Your task to perform on an android device: check out phone information Image 0: 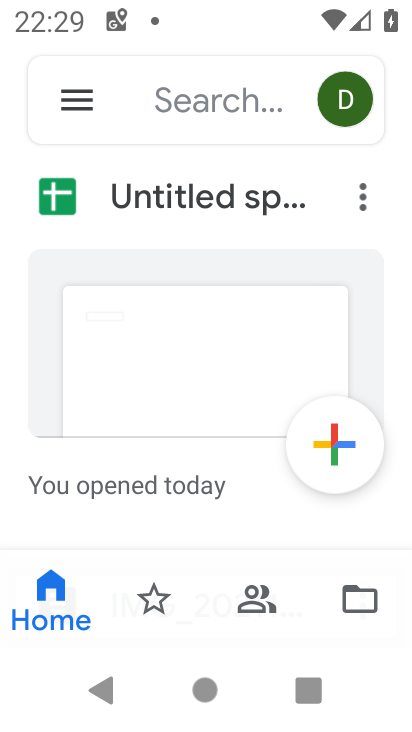
Step 0: press home button
Your task to perform on an android device: check out phone information Image 1: 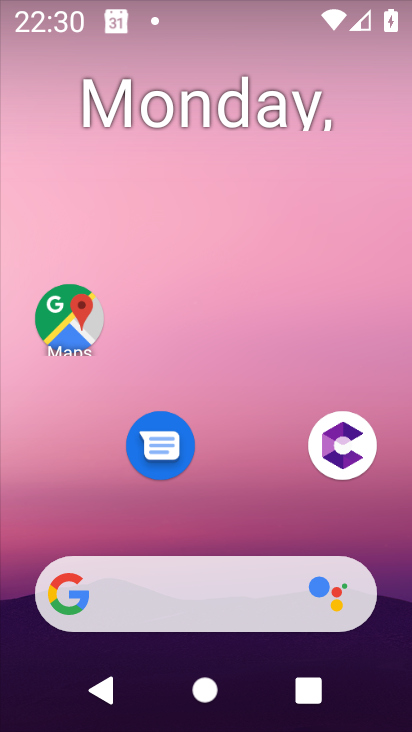
Step 1: drag from (248, 543) to (272, 169)
Your task to perform on an android device: check out phone information Image 2: 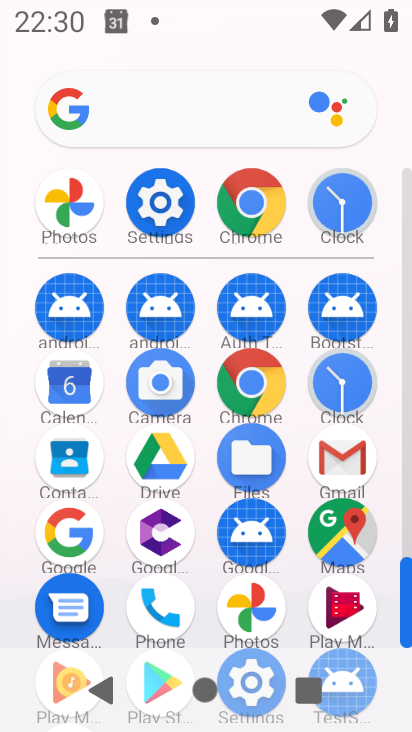
Step 2: click (163, 213)
Your task to perform on an android device: check out phone information Image 3: 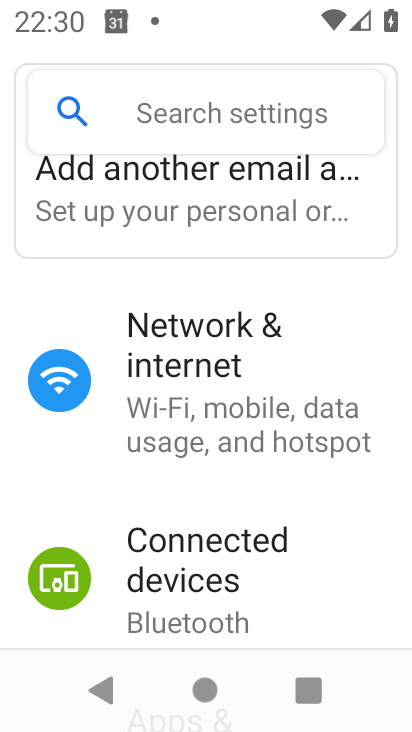
Step 3: drag from (341, 567) to (392, 113)
Your task to perform on an android device: check out phone information Image 4: 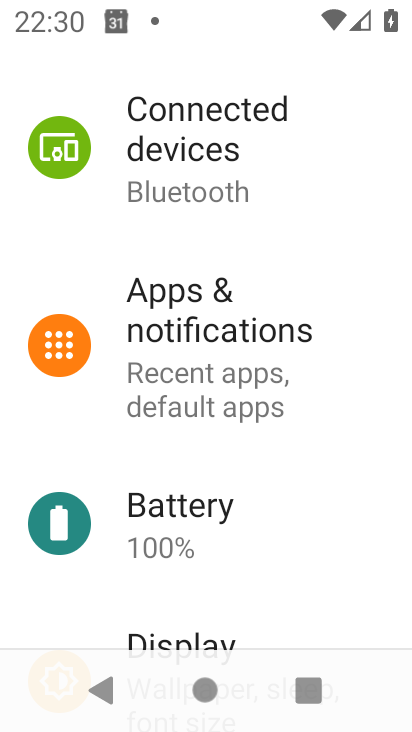
Step 4: drag from (351, 574) to (374, 185)
Your task to perform on an android device: check out phone information Image 5: 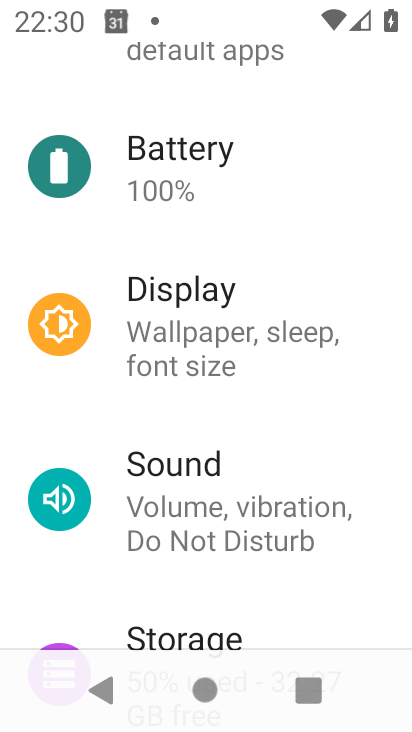
Step 5: drag from (336, 579) to (366, 87)
Your task to perform on an android device: check out phone information Image 6: 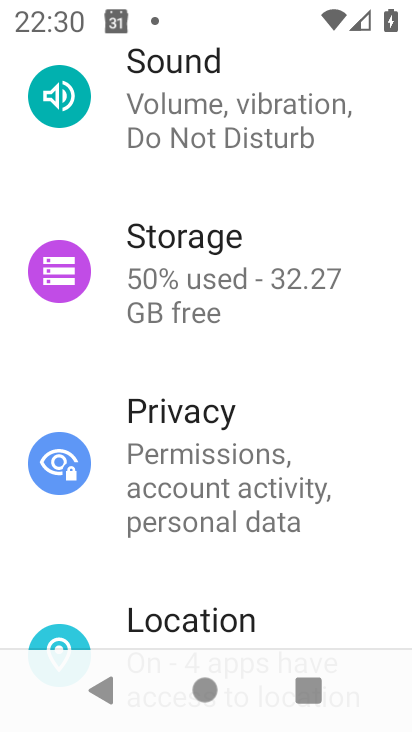
Step 6: drag from (286, 590) to (303, 160)
Your task to perform on an android device: check out phone information Image 7: 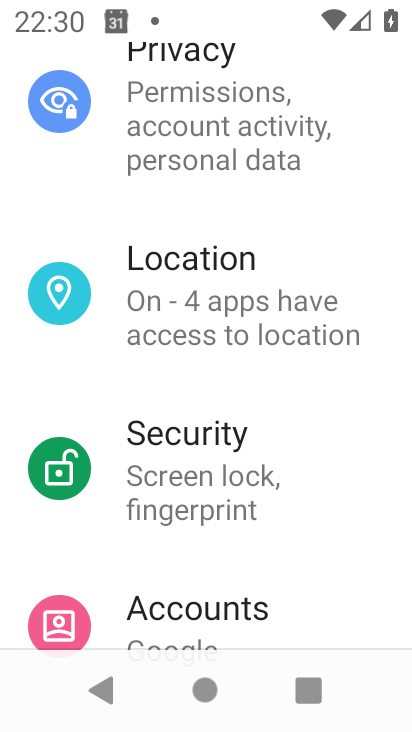
Step 7: drag from (359, 495) to (343, 183)
Your task to perform on an android device: check out phone information Image 8: 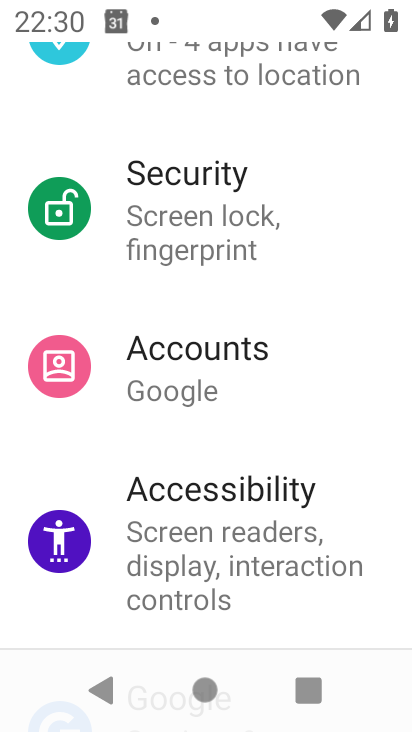
Step 8: drag from (347, 615) to (308, 307)
Your task to perform on an android device: check out phone information Image 9: 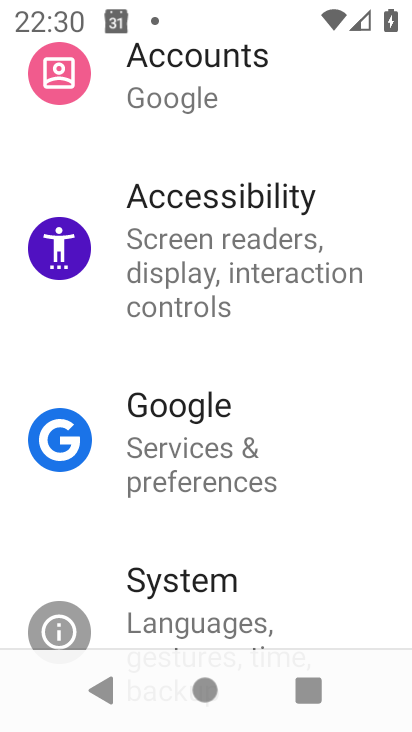
Step 9: drag from (304, 457) to (305, 354)
Your task to perform on an android device: check out phone information Image 10: 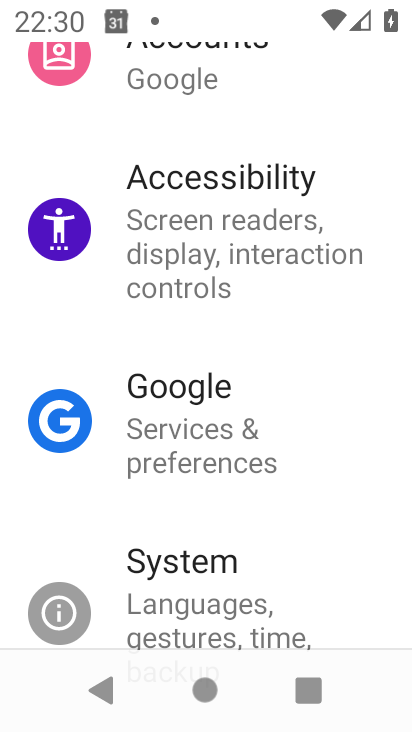
Step 10: drag from (319, 535) to (297, 45)
Your task to perform on an android device: check out phone information Image 11: 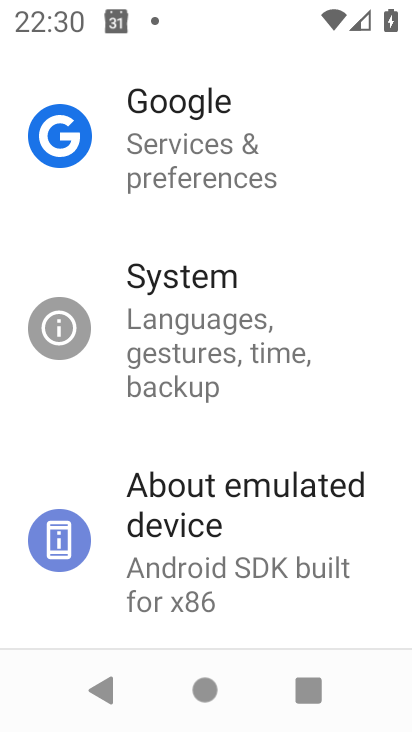
Step 11: click (231, 539)
Your task to perform on an android device: check out phone information Image 12: 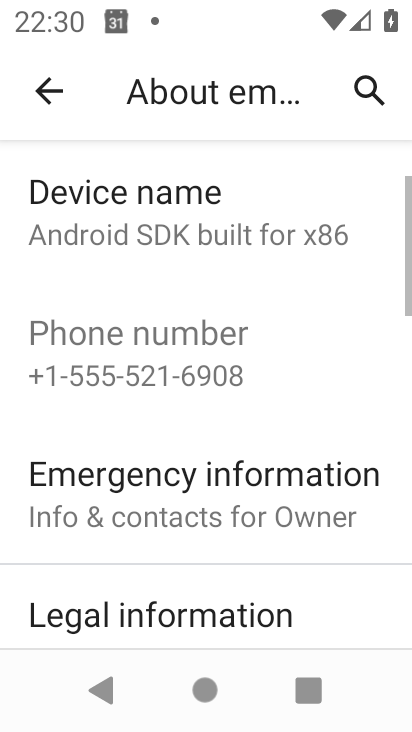
Step 12: task complete